Your task to perform on an android device: turn pop-ups on in chrome Image 0: 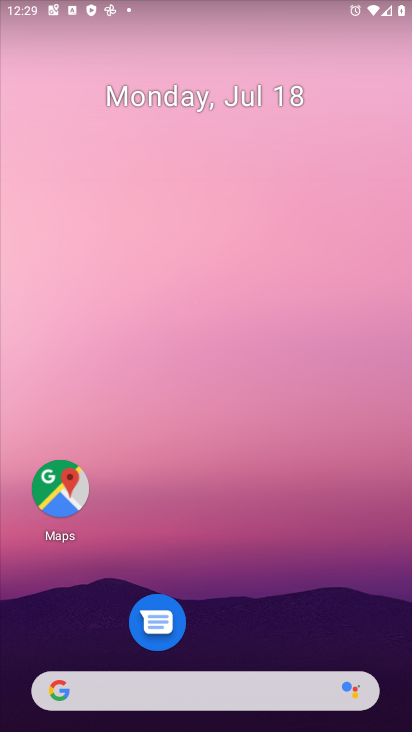
Step 0: drag from (89, 719) to (45, 116)
Your task to perform on an android device: turn pop-ups on in chrome Image 1: 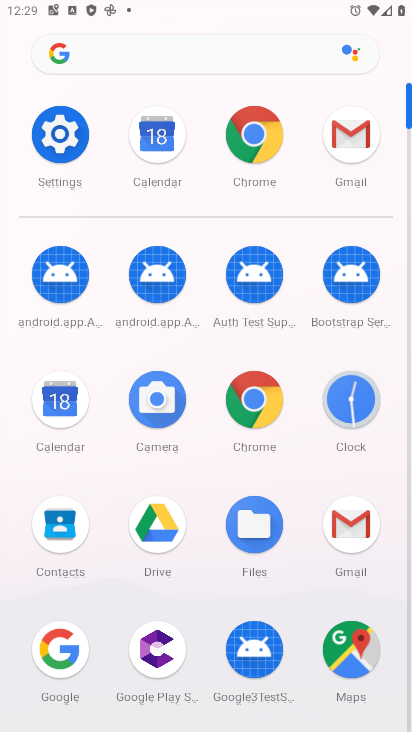
Step 1: click (252, 138)
Your task to perform on an android device: turn pop-ups on in chrome Image 2: 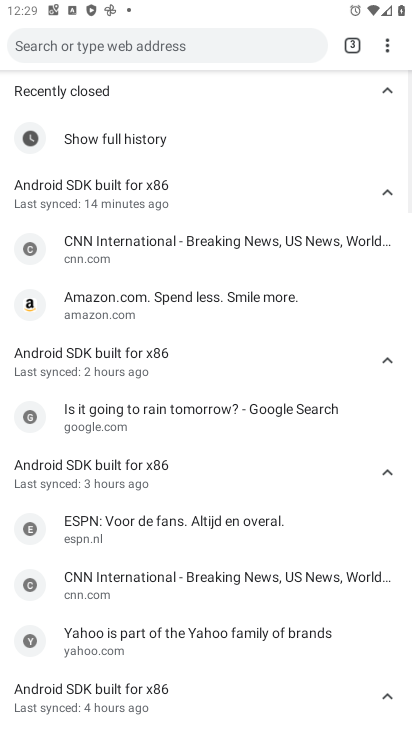
Step 2: click (389, 45)
Your task to perform on an android device: turn pop-ups on in chrome Image 3: 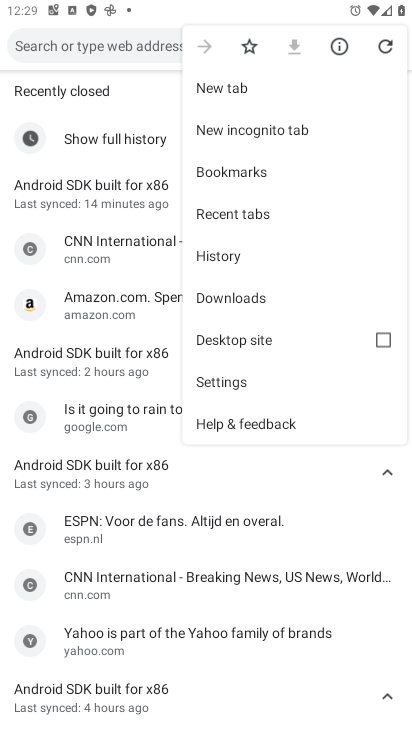
Step 3: click (246, 381)
Your task to perform on an android device: turn pop-ups on in chrome Image 4: 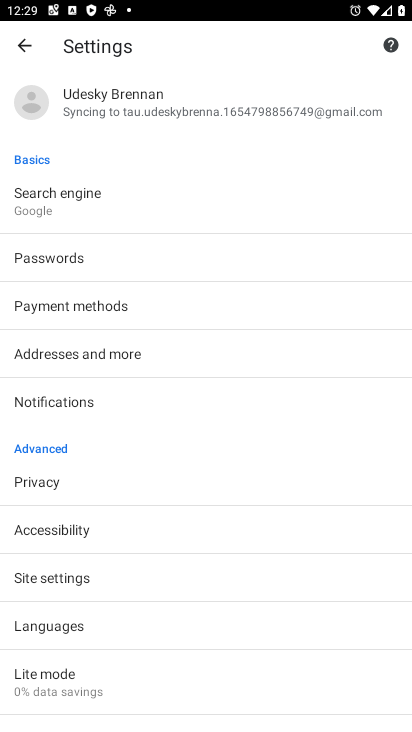
Step 4: click (87, 577)
Your task to perform on an android device: turn pop-ups on in chrome Image 5: 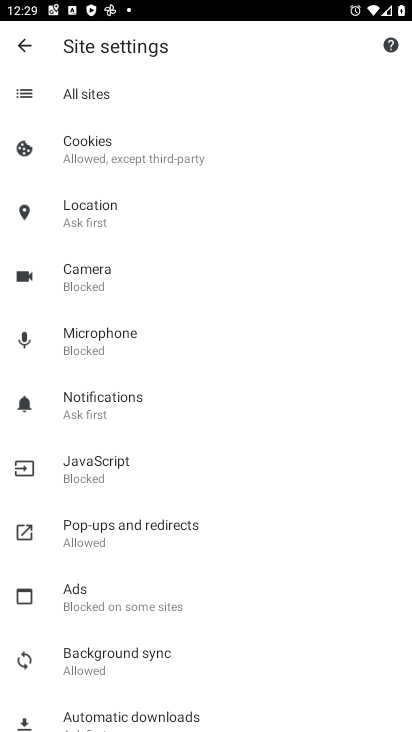
Step 5: click (153, 528)
Your task to perform on an android device: turn pop-ups on in chrome Image 6: 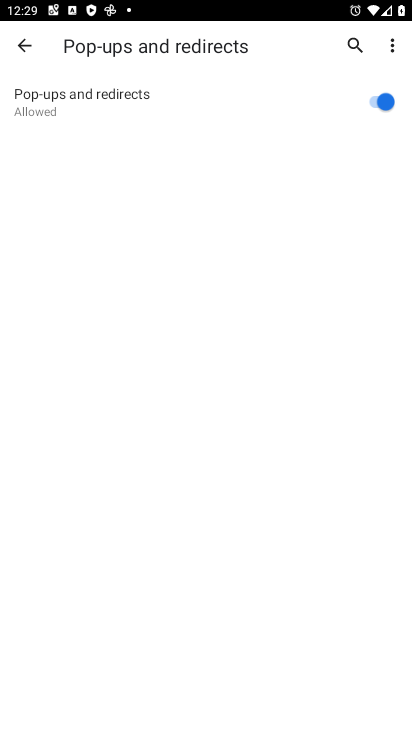
Step 6: task complete